Your task to perform on an android device: Open the map Image 0: 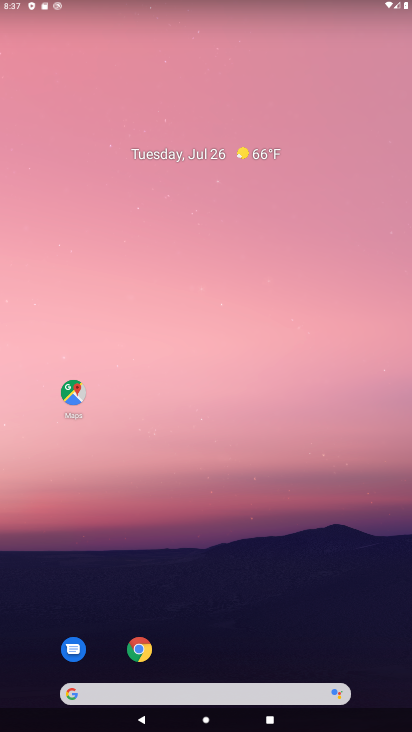
Step 0: click (67, 389)
Your task to perform on an android device: Open the map Image 1: 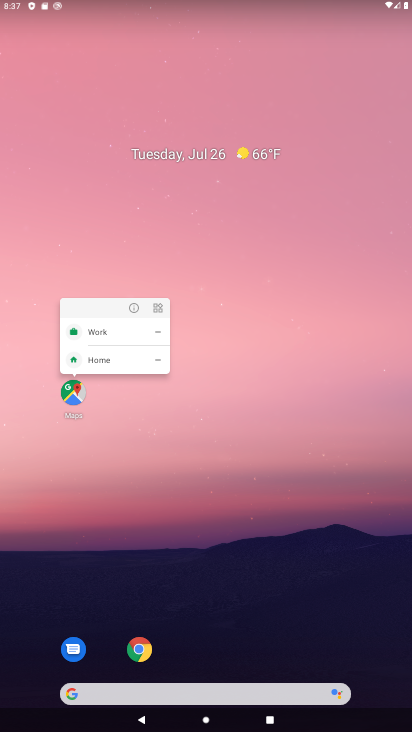
Step 1: click (67, 389)
Your task to perform on an android device: Open the map Image 2: 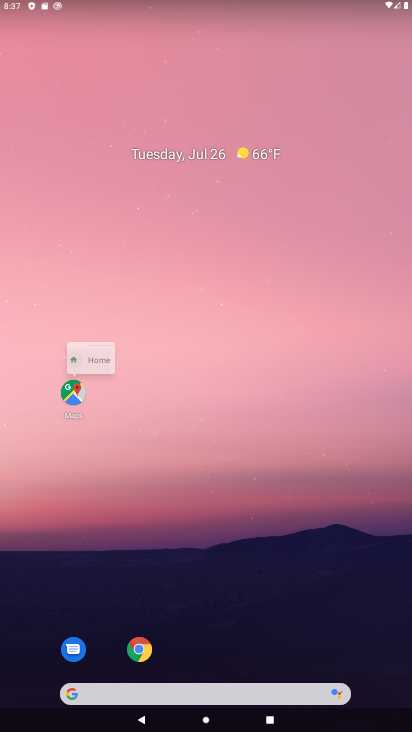
Step 2: click (67, 389)
Your task to perform on an android device: Open the map Image 3: 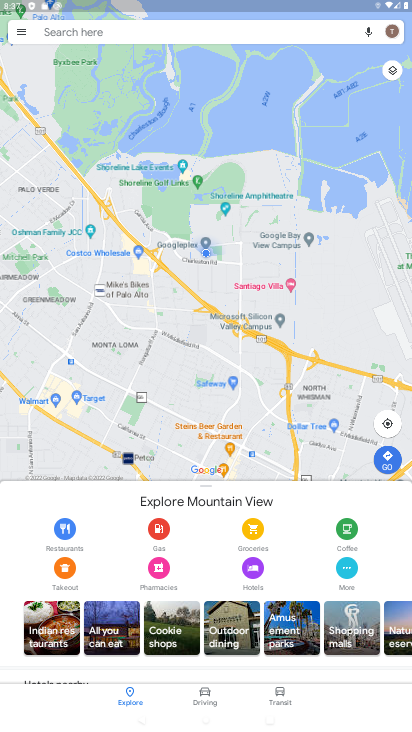
Step 3: task complete